Your task to perform on an android device: star an email in the gmail app Image 0: 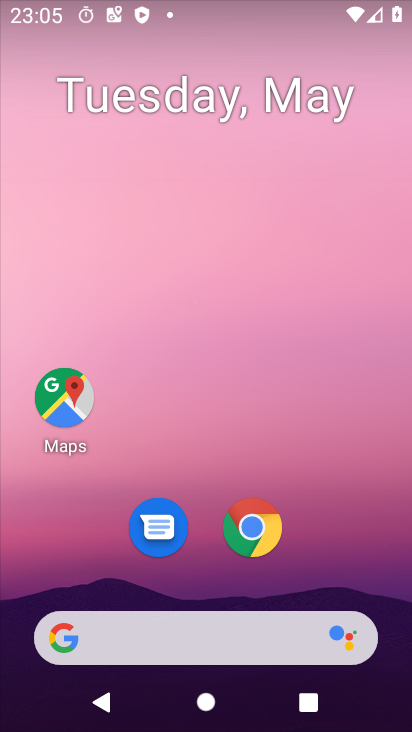
Step 0: drag from (224, 541) to (240, 199)
Your task to perform on an android device: star an email in the gmail app Image 1: 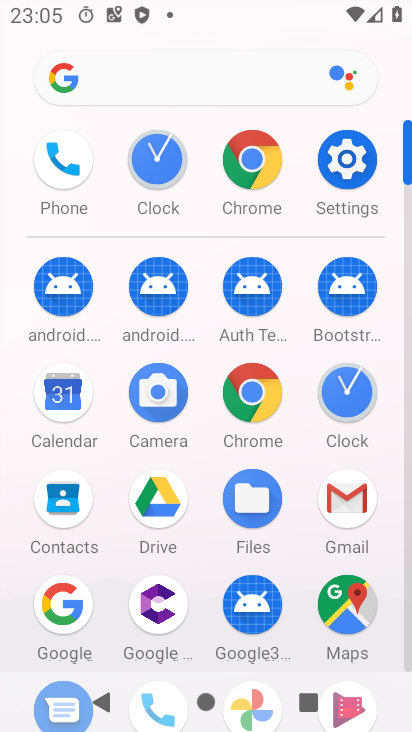
Step 1: click (346, 498)
Your task to perform on an android device: star an email in the gmail app Image 2: 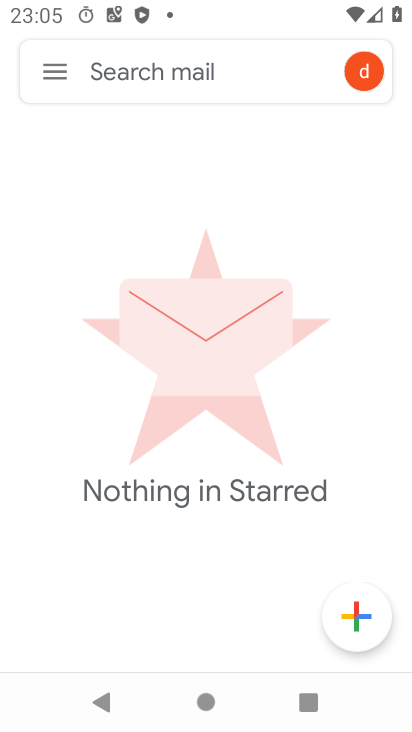
Step 2: click (30, 15)
Your task to perform on an android device: star an email in the gmail app Image 3: 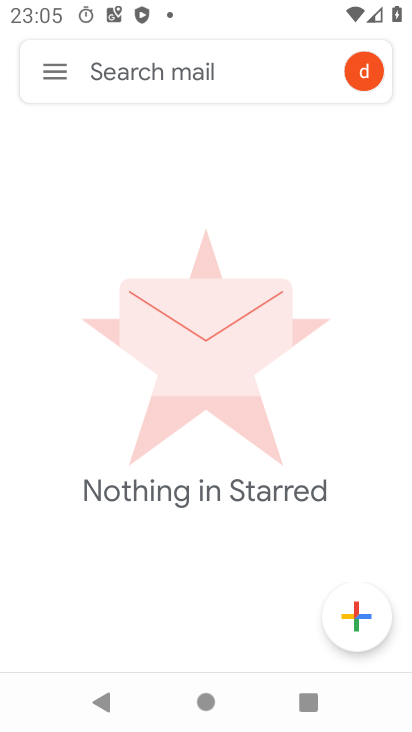
Step 3: click (77, 69)
Your task to perform on an android device: star an email in the gmail app Image 4: 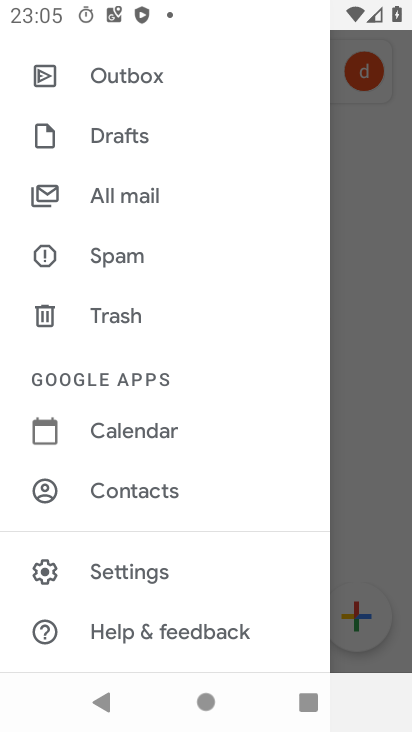
Step 4: drag from (130, 228) to (319, 688)
Your task to perform on an android device: star an email in the gmail app Image 5: 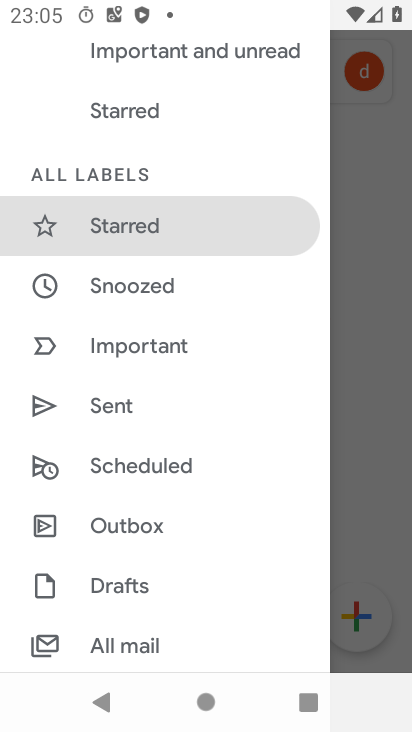
Step 5: click (153, 240)
Your task to perform on an android device: star an email in the gmail app Image 6: 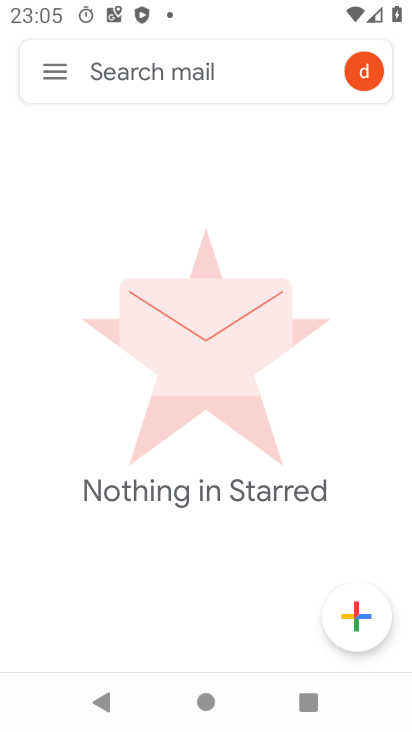
Step 6: task complete